Your task to perform on an android device: Find coffee shops on Maps Image 0: 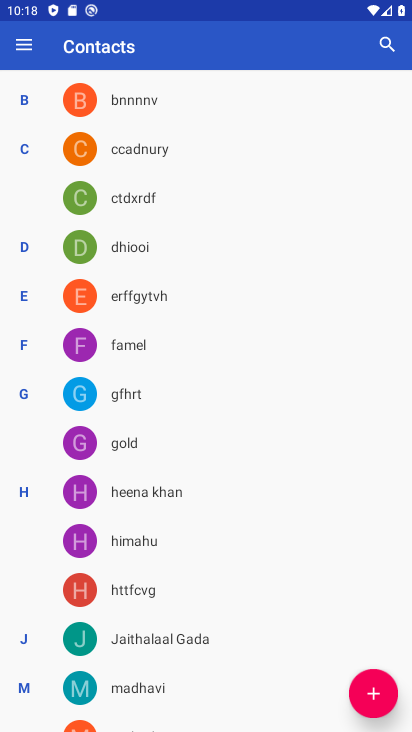
Step 0: press home button
Your task to perform on an android device: Find coffee shops on Maps Image 1: 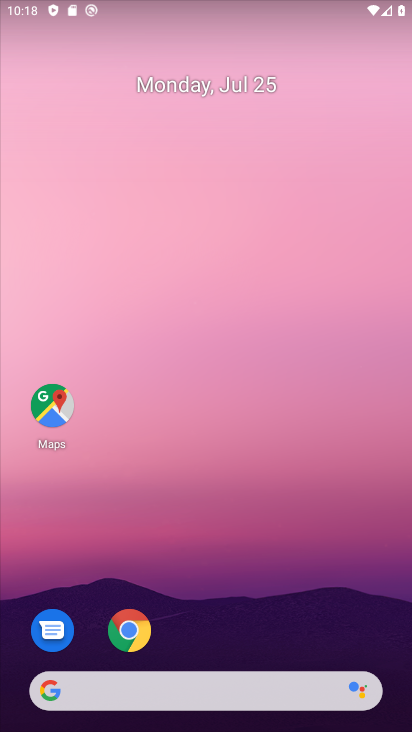
Step 1: drag from (273, 546) to (213, 70)
Your task to perform on an android device: Find coffee shops on Maps Image 2: 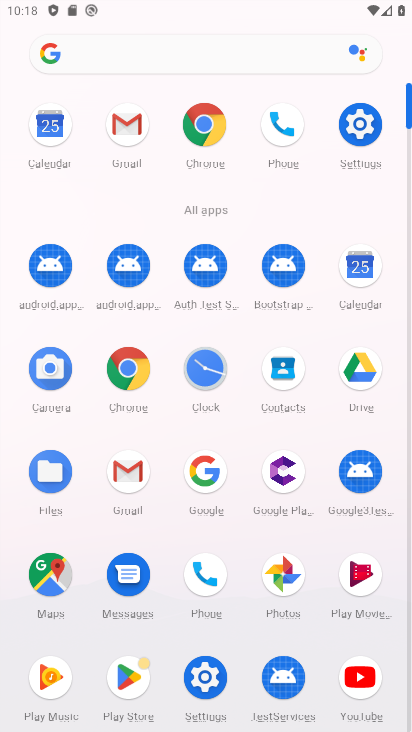
Step 2: click (57, 577)
Your task to perform on an android device: Find coffee shops on Maps Image 3: 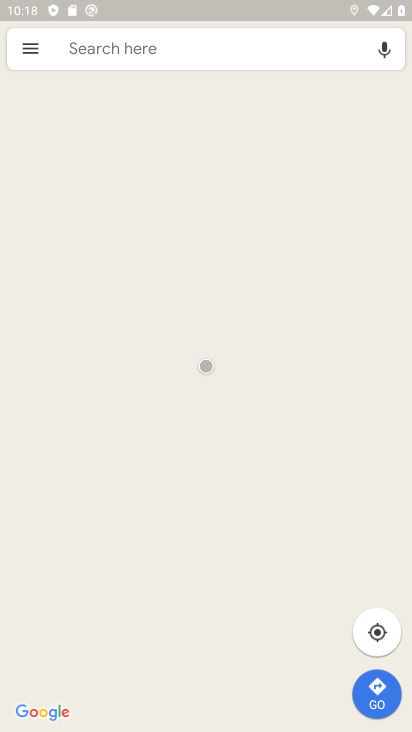
Step 3: click (163, 56)
Your task to perform on an android device: Find coffee shops on Maps Image 4: 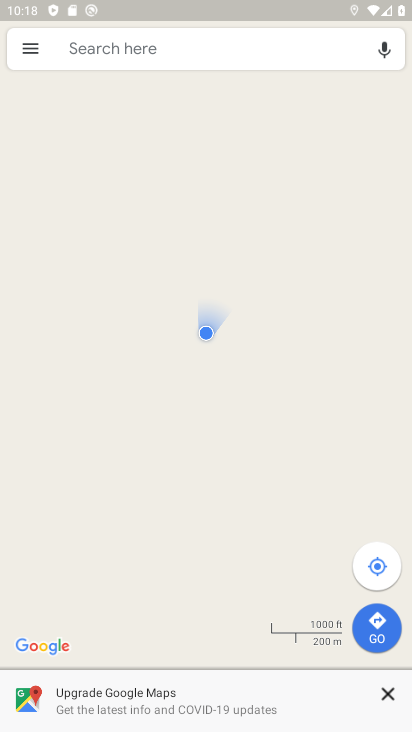
Step 4: click (112, 42)
Your task to perform on an android device: Find coffee shops on Maps Image 5: 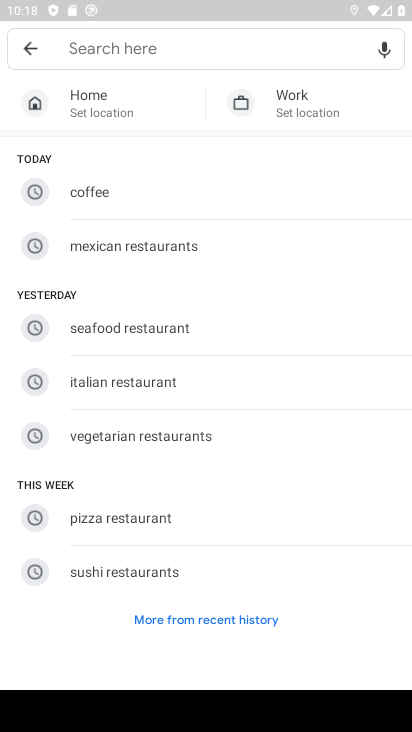
Step 5: type "coffee shops"
Your task to perform on an android device: Find coffee shops on Maps Image 6: 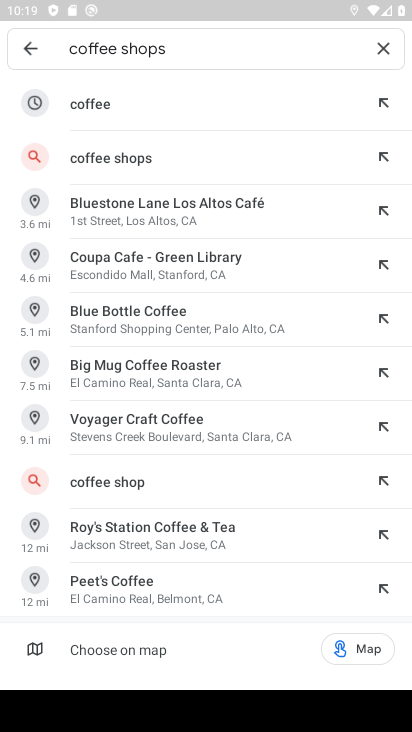
Step 6: click (139, 152)
Your task to perform on an android device: Find coffee shops on Maps Image 7: 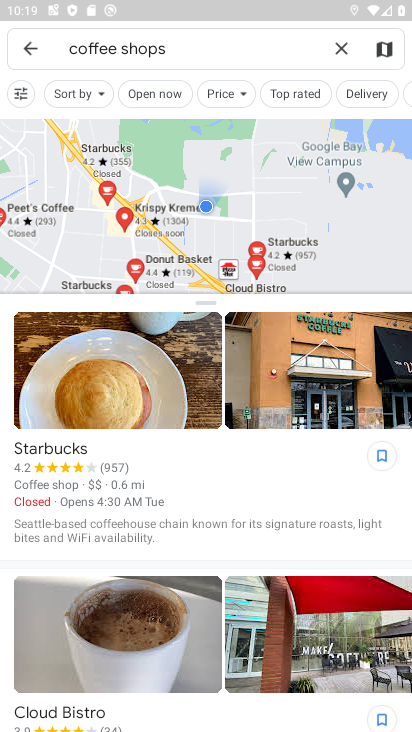
Step 7: task complete